Your task to perform on an android device: Go to battery settings Image 0: 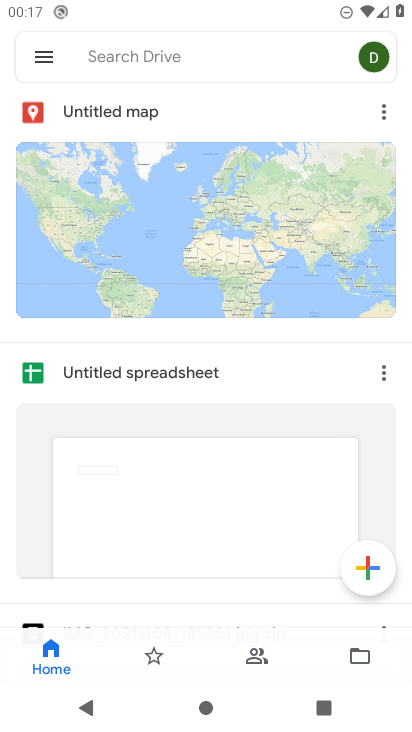
Step 0: press home button
Your task to perform on an android device: Go to battery settings Image 1: 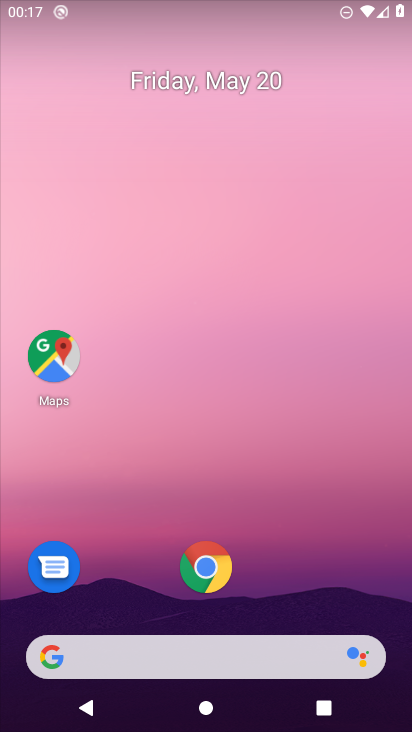
Step 1: drag from (259, 614) to (283, 22)
Your task to perform on an android device: Go to battery settings Image 2: 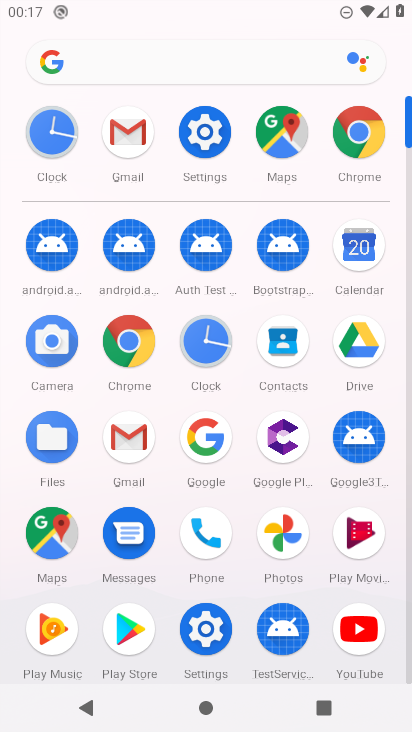
Step 2: click (203, 127)
Your task to perform on an android device: Go to battery settings Image 3: 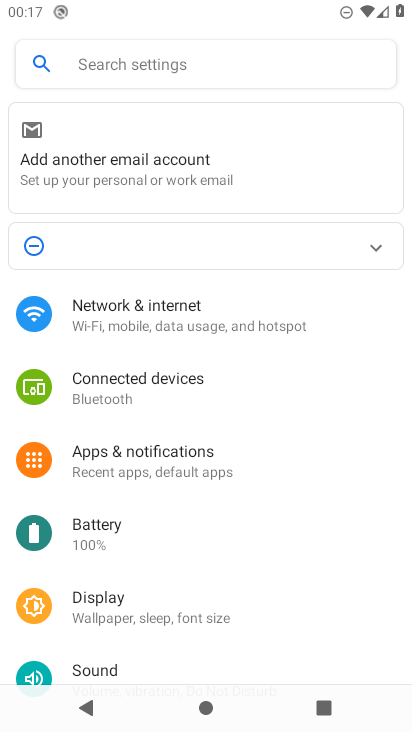
Step 3: click (127, 531)
Your task to perform on an android device: Go to battery settings Image 4: 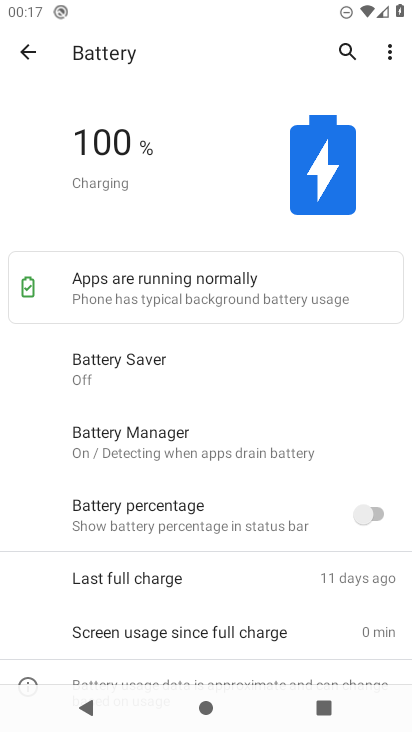
Step 4: task complete